Your task to perform on an android device: check out phone information Image 0: 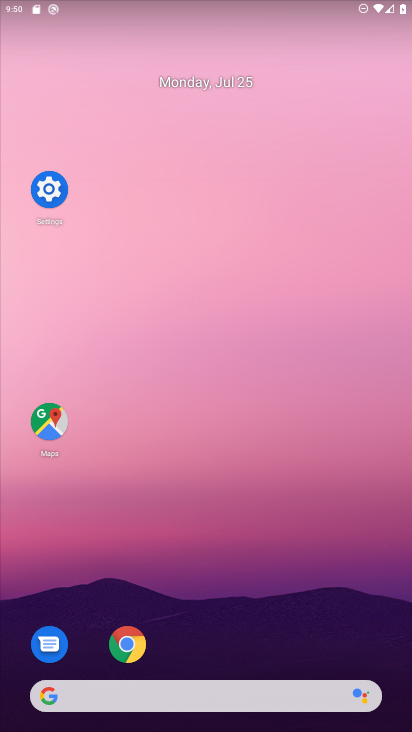
Step 0: drag from (258, 613) to (243, 138)
Your task to perform on an android device: check out phone information Image 1: 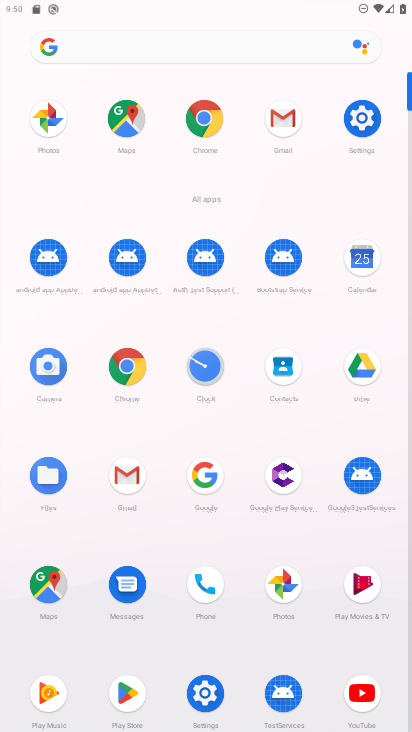
Step 1: click (352, 124)
Your task to perform on an android device: check out phone information Image 2: 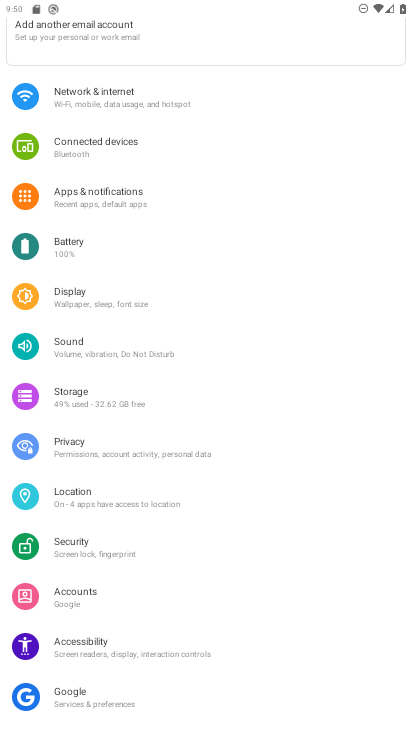
Step 2: drag from (129, 594) to (130, 205)
Your task to perform on an android device: check out phone information Image 3: 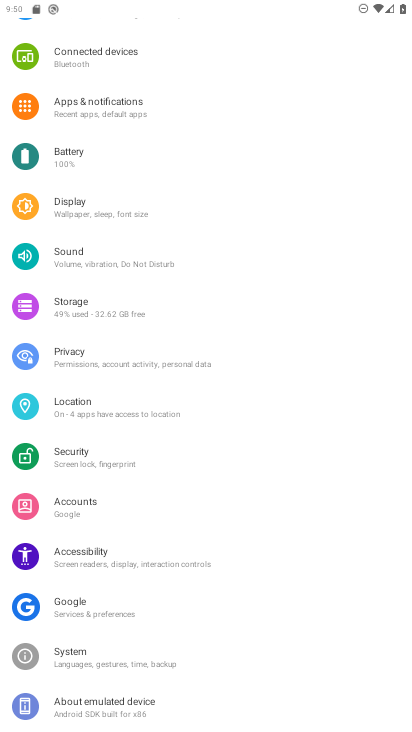
Step 3: click (129, 723)
Your task to perform on an android device: check out phone information Image 4: 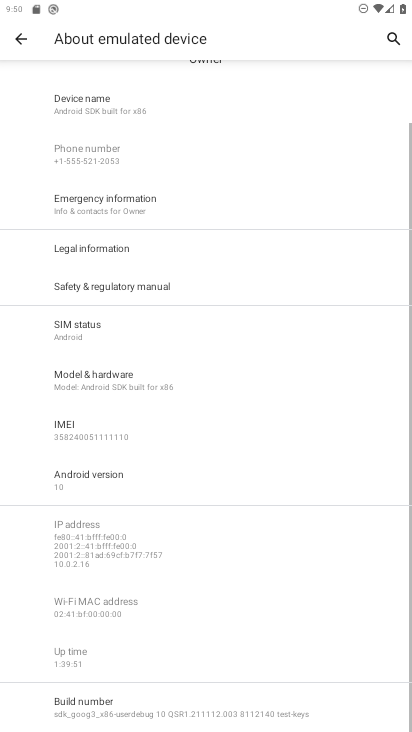
Step 4: click (194, 378)
Your task to perform on an android device: check out phone information Image 5: 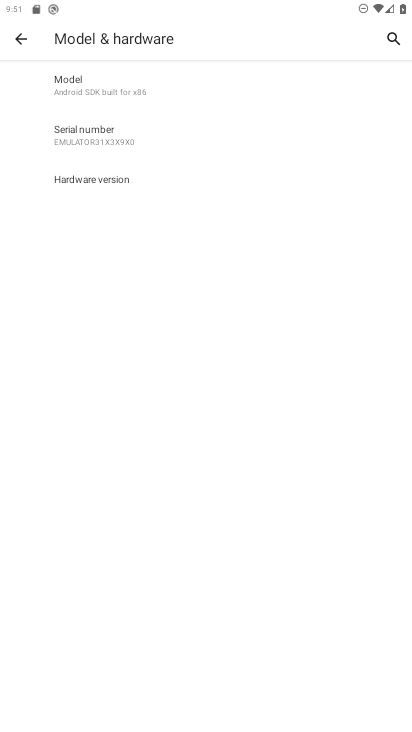
Step 5: task complete